Your task to perform on an android device: manage bookmarks in the chrome app Image 0: 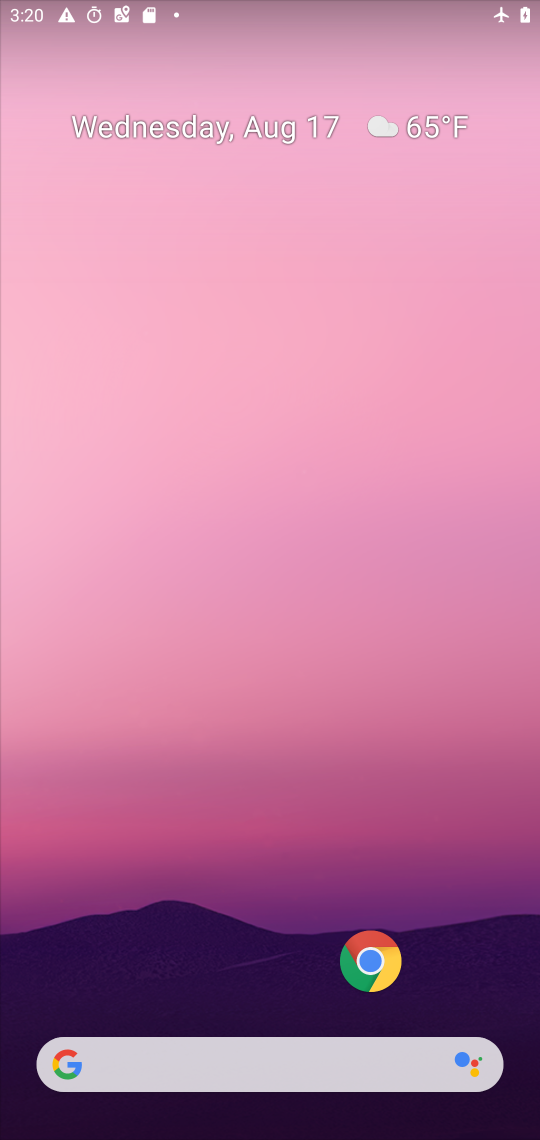
Step 0: drag from (499, 177) to (436, 0)
Your task to perform on an android device: manage bookmarks in the chrome app Image 1: 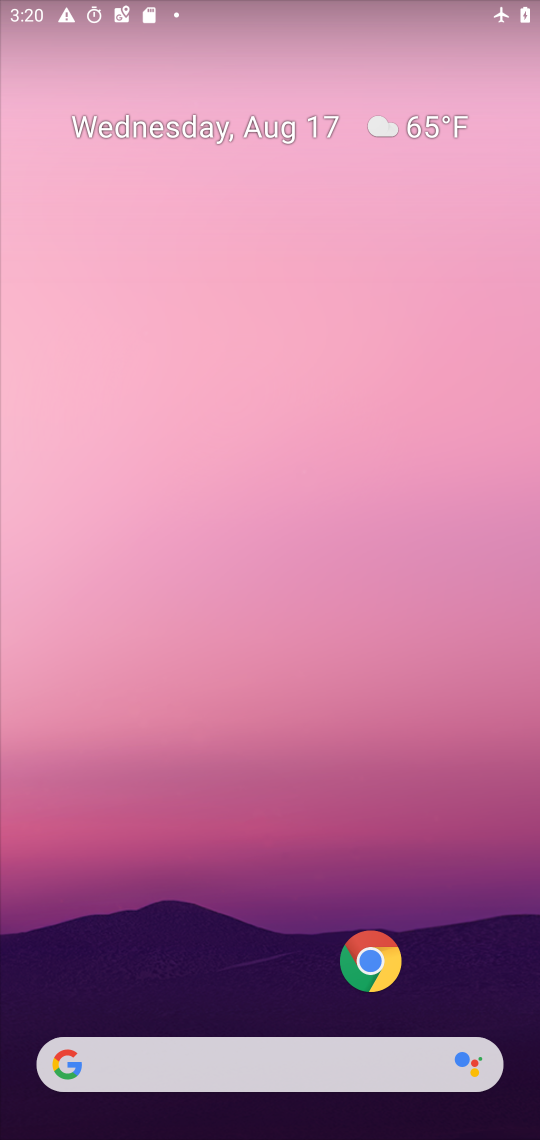
Step 1: drag from (328, 589) to (318, 274)
Your task to perform on an android device: manage bookmarks in the chrome app Image 2: 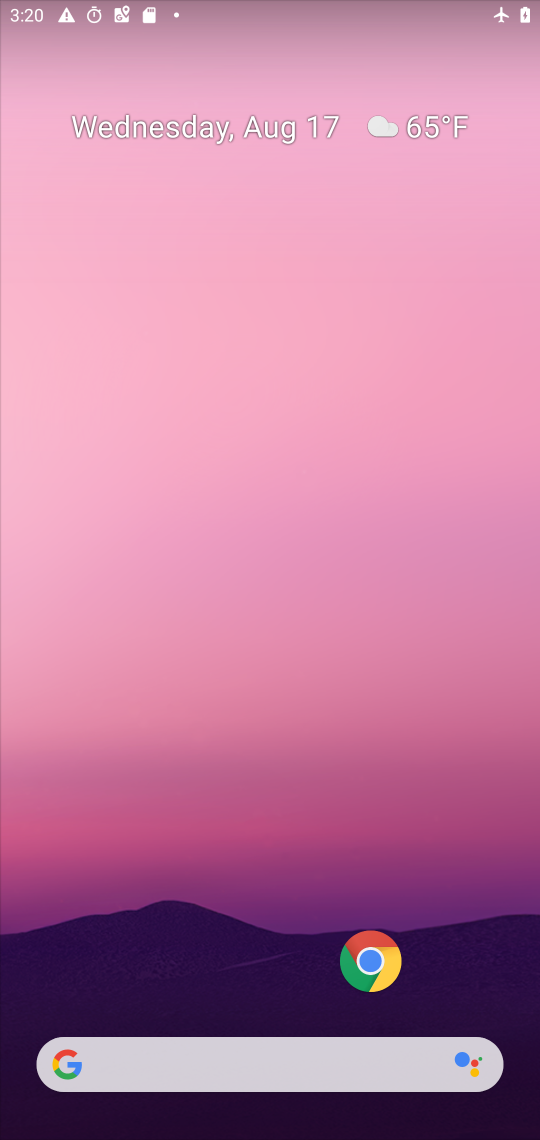
Step 2: click (391, 971)
Your task to perform on an android device: manage bookmarks in the chrome app Image 3: 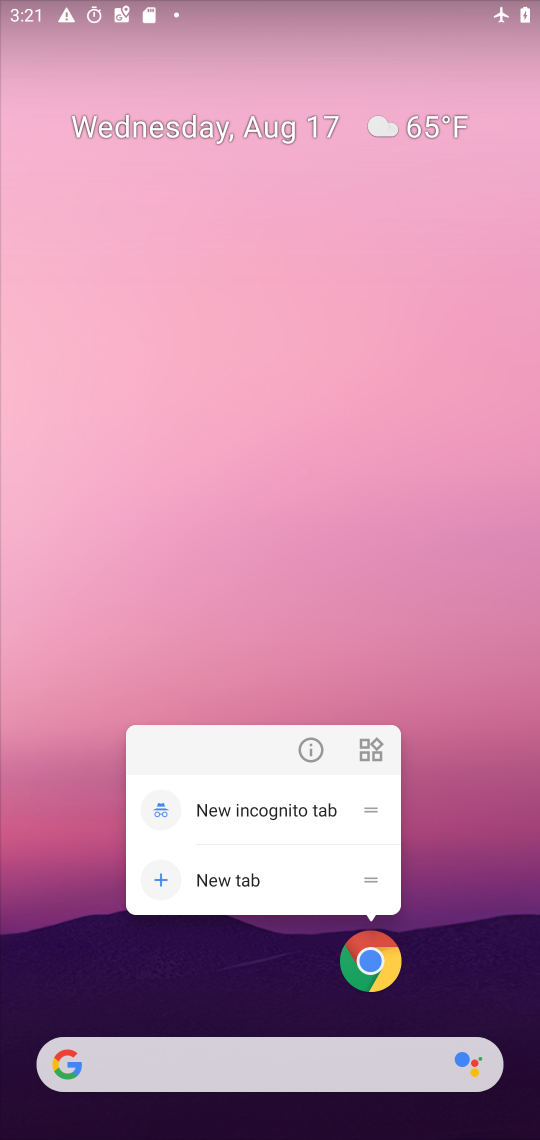
Step 3: click (384, 981)
Your task to perform on an android device: manage bookmarks in the chrome app Image 4: 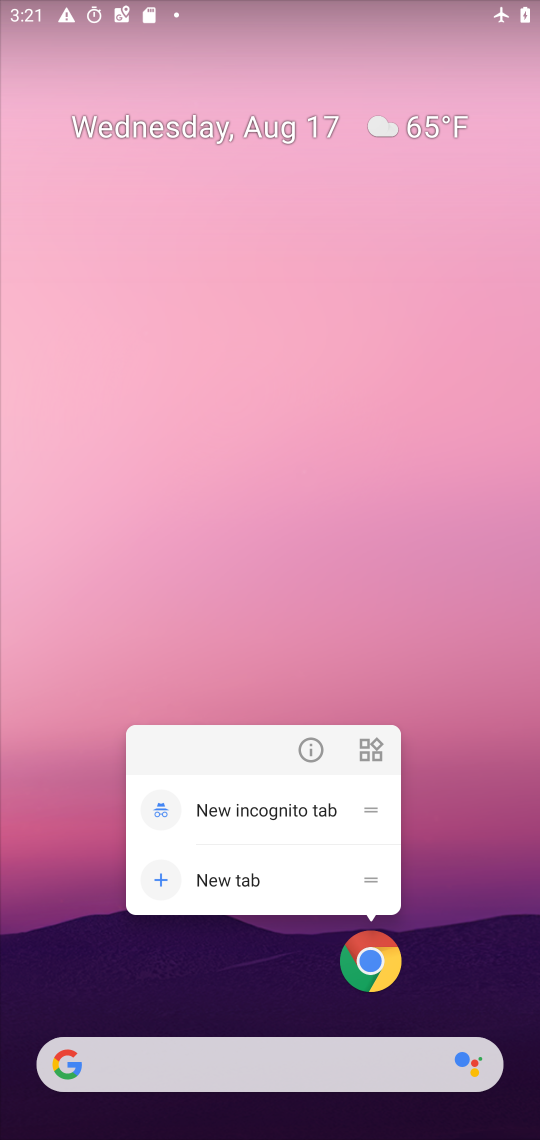
Step 4: click (383, 980)
Your task to perform on an android device: manage bookmarks in the chrome app Image 5: 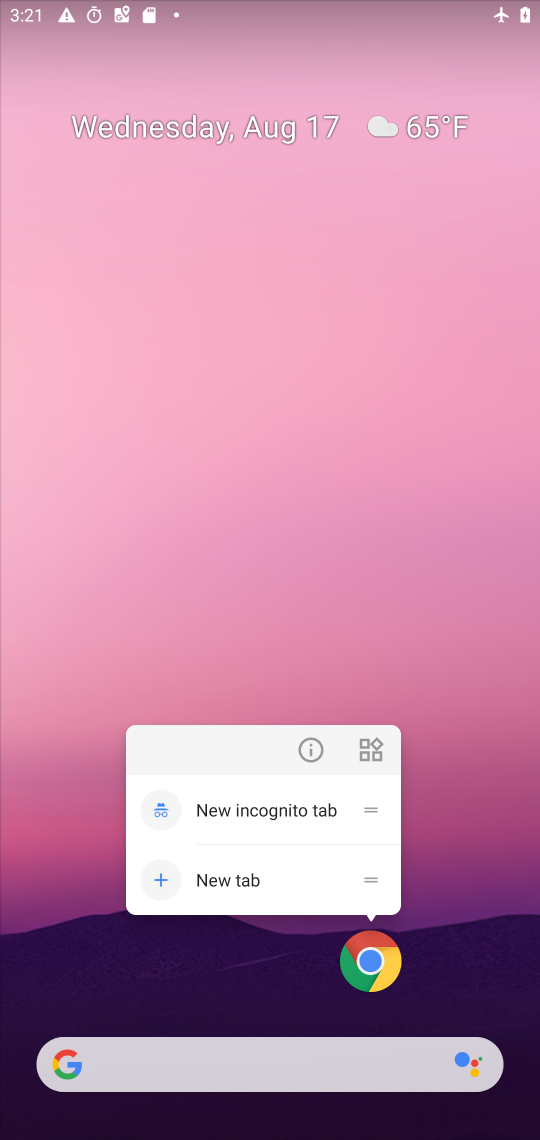
Step 5: click (383, 974)
Your task to perform on an android device: manage bookmarks in the chrome app Image 6: 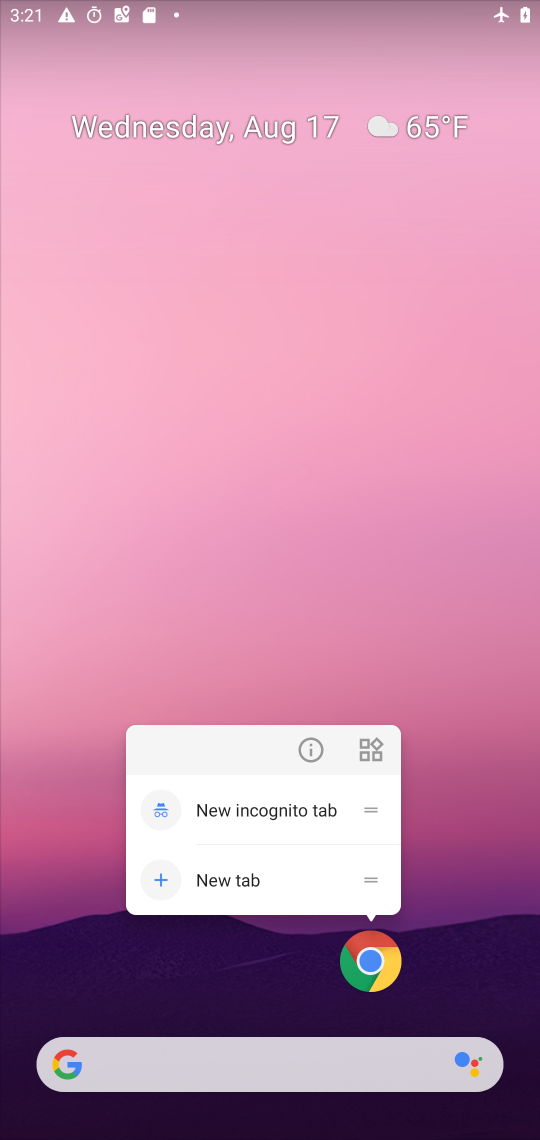
Step 6: click (383, 974)
Your task to perform on an android device: manage bookmarks in the chrome app Image 7: 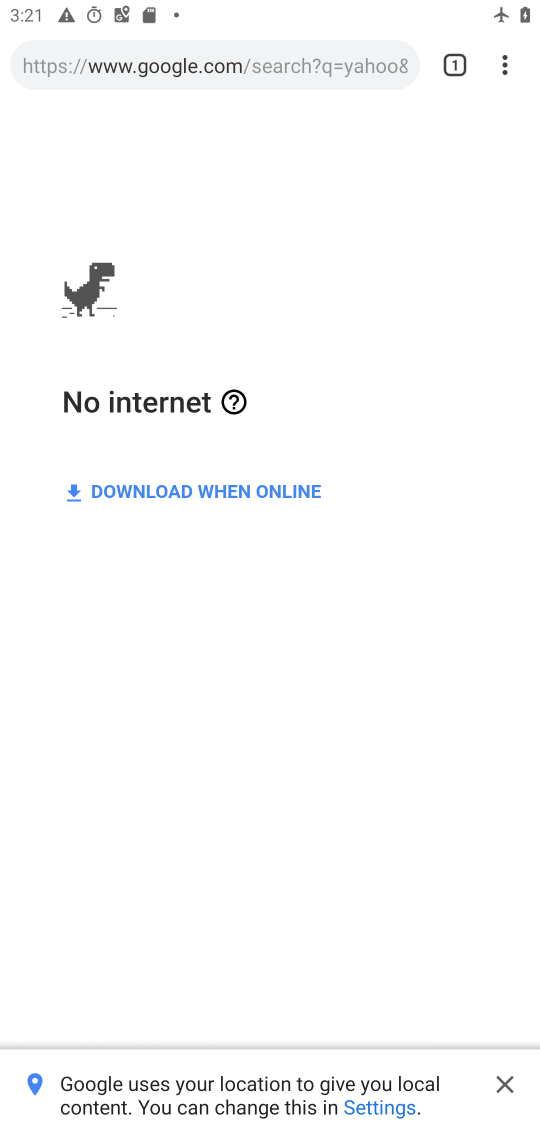
Step 7: click (518, 71)
Your task to perform on an android device: manage bookmarks in the chrome app Image 8: 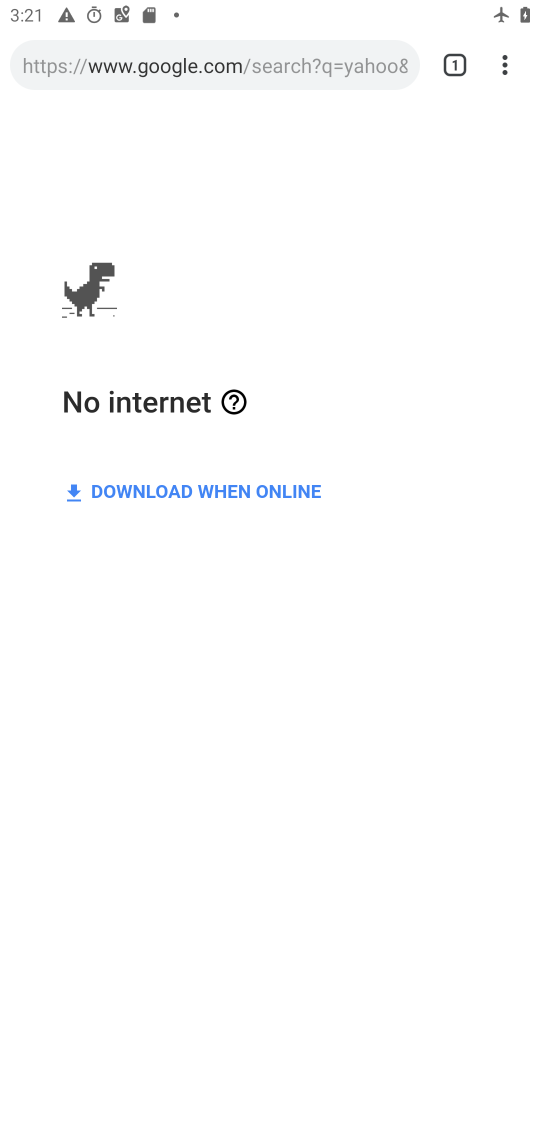
Step 8: click (519, 73)
Your task to perform on an android device: manage bookmarks in the chrome app Image 9: 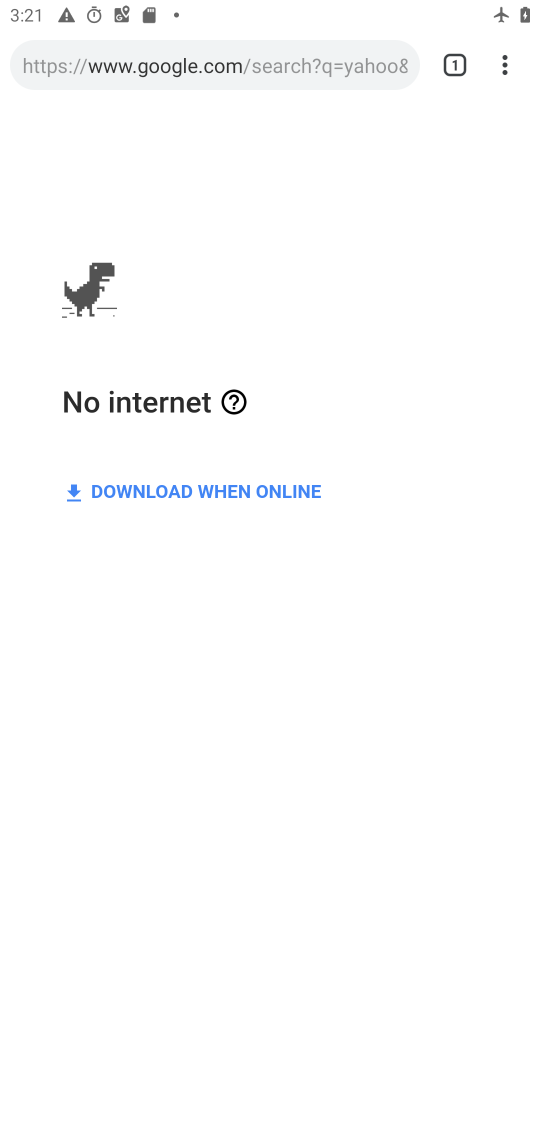
Step 9: click (519, 73)
Your task to perform on an android device: manage bookmarks in the chrome app Image 10: 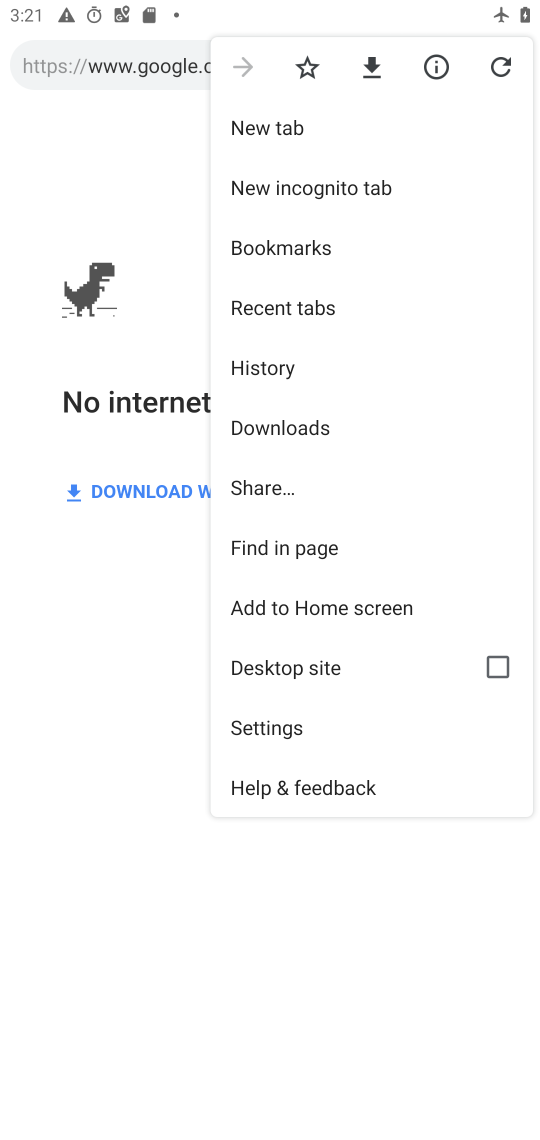
Step 10: click (327, 249)
Your task to perform on an android device: manage bookmarks in the chrome app Image 11: 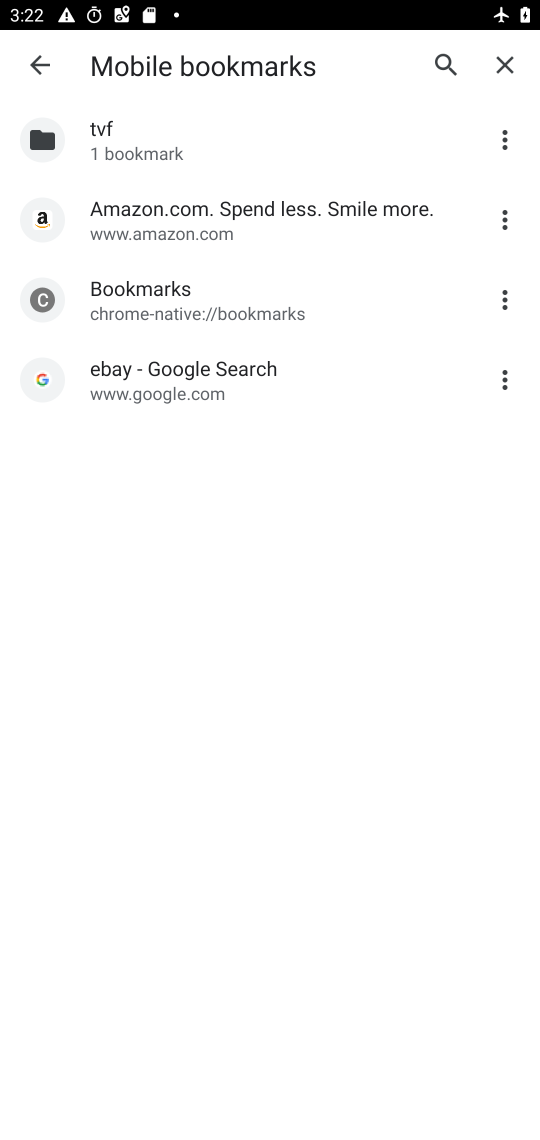
Step 11: task complete